Your task to perform on an android device: Go to Google maps Image 0: 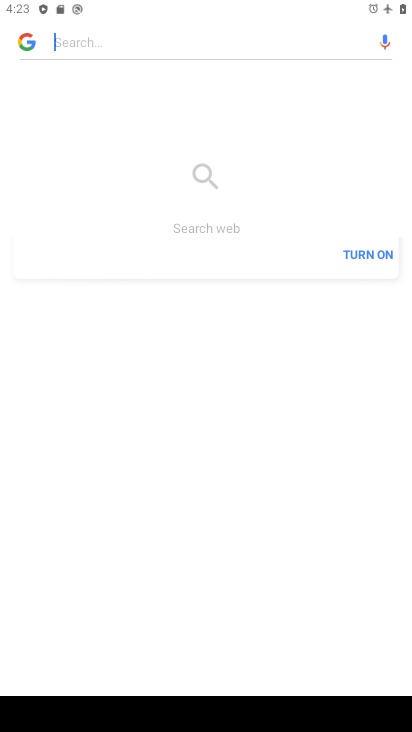
Step 0: press home button
Your task to perform on an android device: Go to Google maps Image 1: 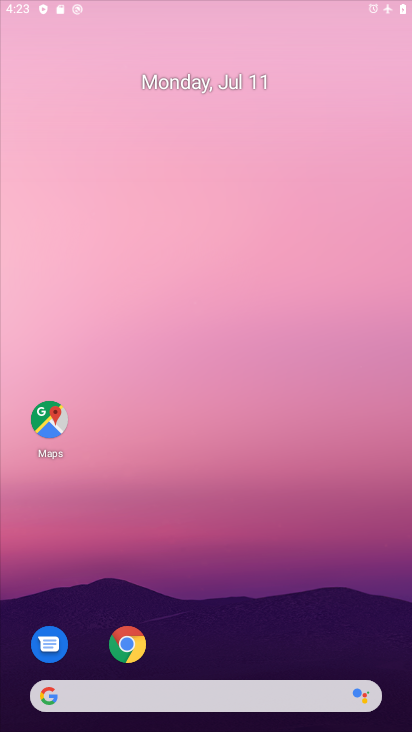
Step 1: drag from (242, 685) to (286, 4)
Your task to perform on an android device: Go to Google maps Image 2: 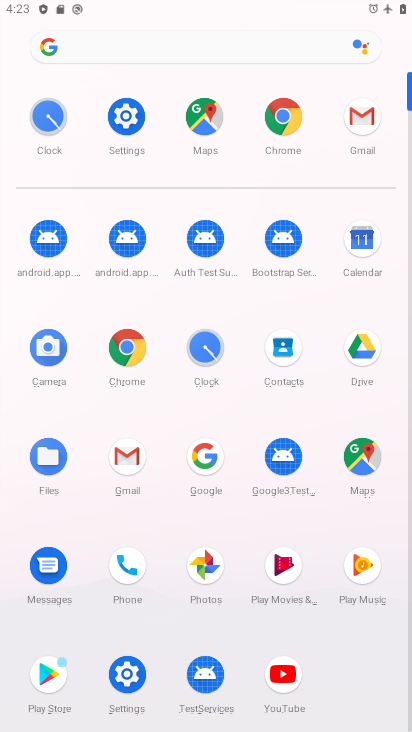
Step 2: click (355, 464)
Your task to perform on an android device: Go to Google maps Image 3: 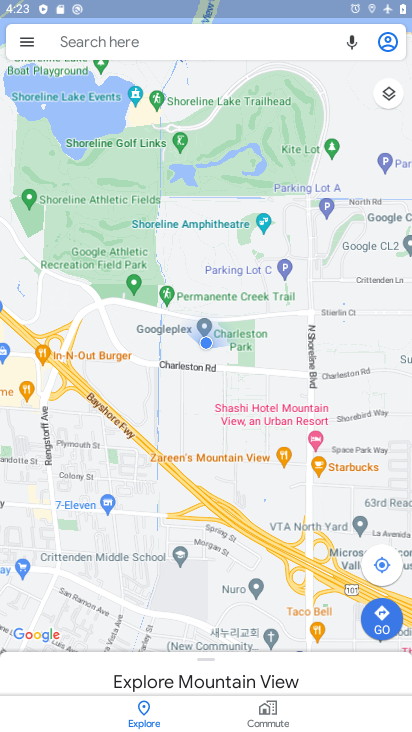
Step 3: task complete